Your task to perform on an android device: turn on data saver in the chrome app Image 0: 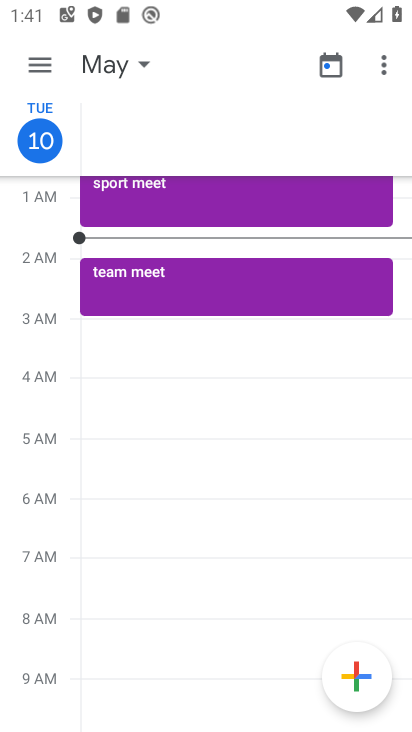
Step 0: press home button
Your task to perform on an android device: turn on data saver in the chrome app Image 1: 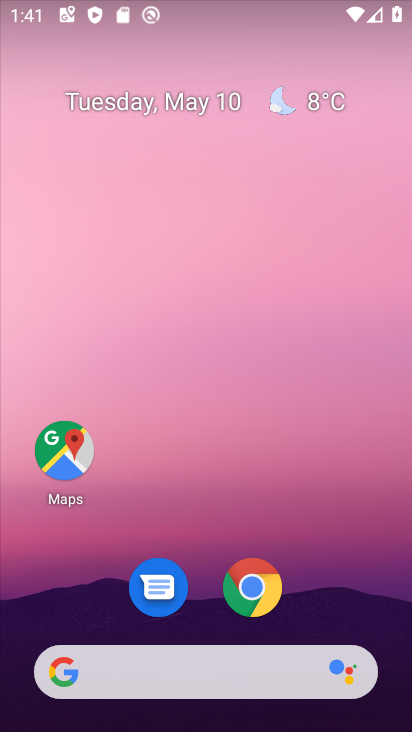
Step 1: click (261, 578)
Your task to perform on an android device: turn on data saver in the chrome app Image 2: 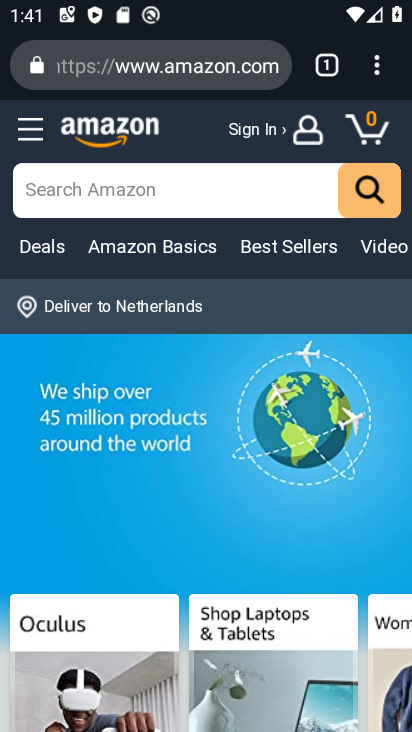
Step 2: click (373, 60)
Your task to perform on an android device: turn on data saver in the chrome app Image 3: 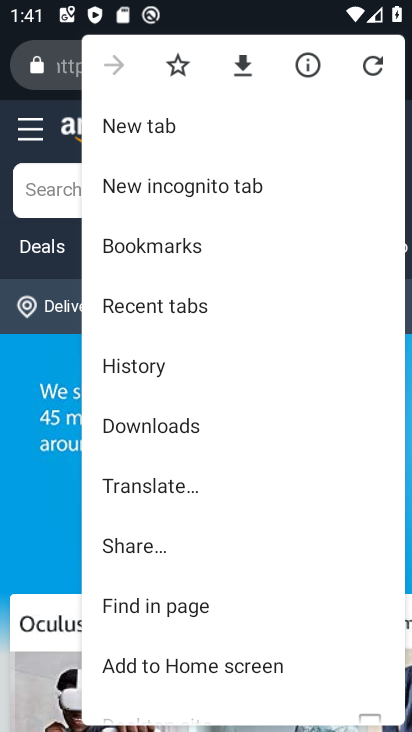
Step 3: drag from (193, 637) to (168, 313)
Your task to perform on an android device: turn on data saver in the chrome app Image 4: 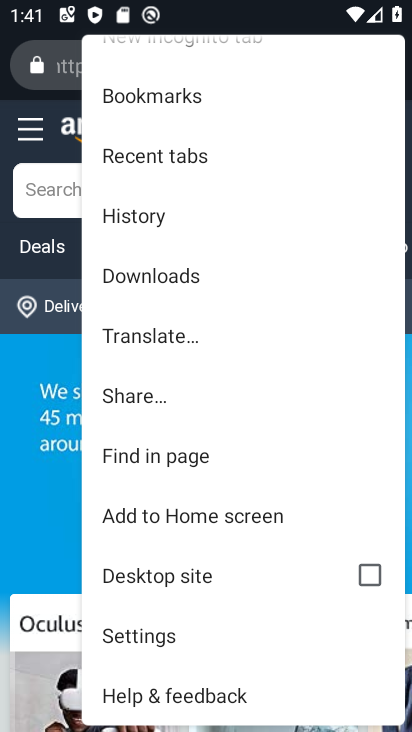
Step 4: click (189, 628)
Your task to perform on an android device: turn on data saver in the chrome app Image 5: 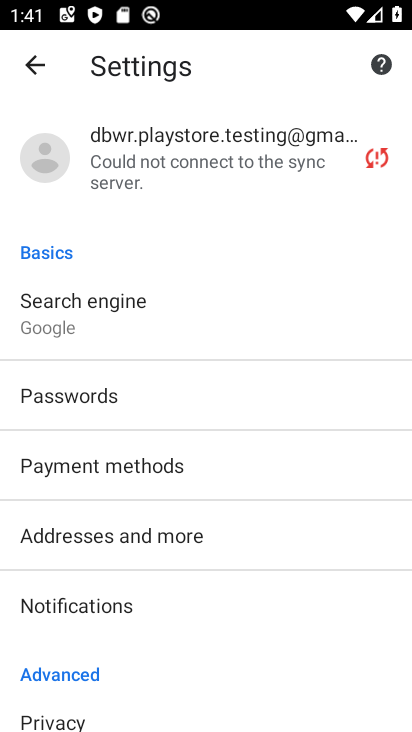
Step 5: drag from (168, 625) to (146, 276)
Your task to perform on an android device: turn on data saver in the chrome app Image 6: 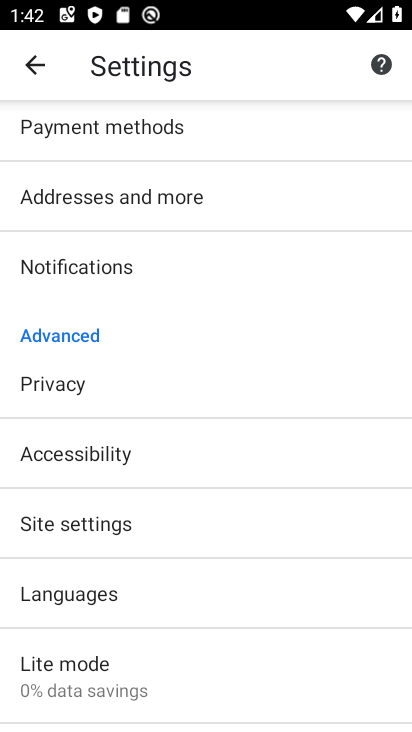
Step 6: drag from (155, 655) to (139, 379)
Your task to perform on an android device: turn on data saver in the chrome app Image 7: 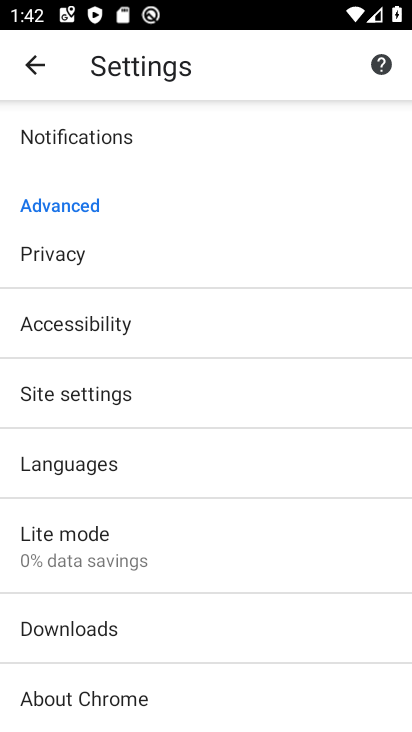
Step 7: drag from (144, 559) to (141, 315)
Your task to perform on an android device: turn on data saver in the chrome app Image 8: 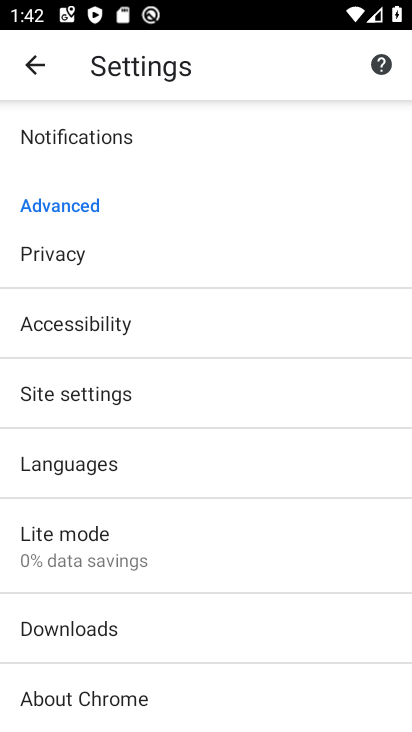
Step 8: click (157, 535)
Your task to perform on an android device: turn on data saver in the chrome app Image 9: 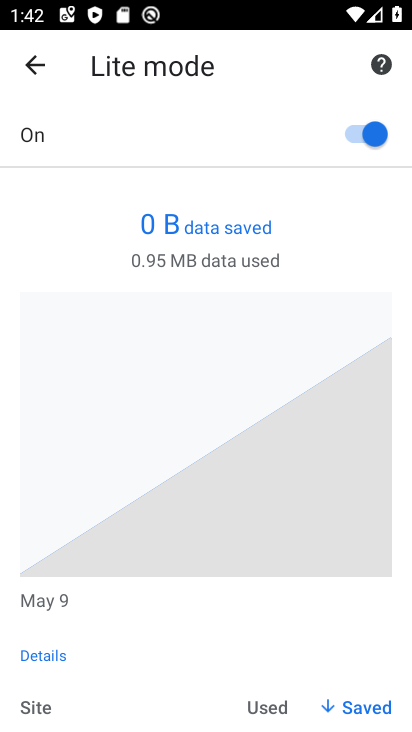
Step 9: task complete